Your task to perform on an android device: Open Google Image 0: 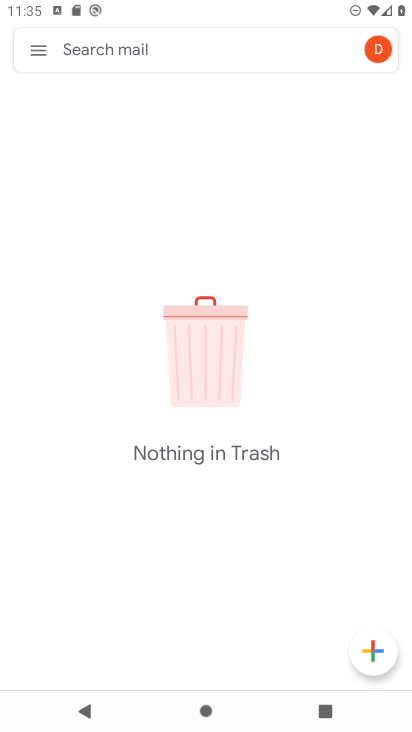
Step 0: press home button
Your task to perform on an android device: Open Google Image 1: 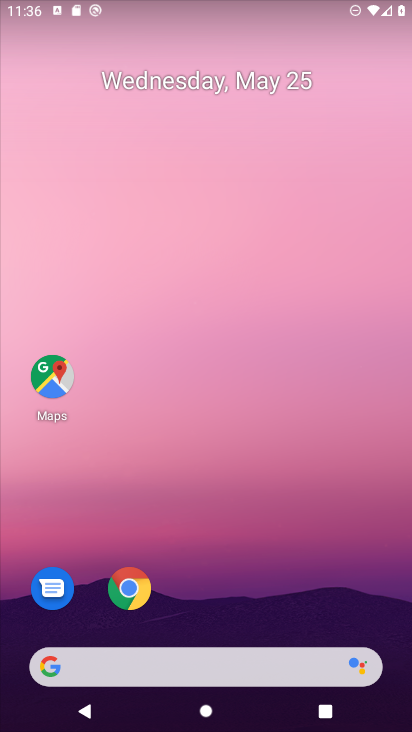
Step 1: click (103, 661)
Your task to perform on an android device: Open Google Image 2: 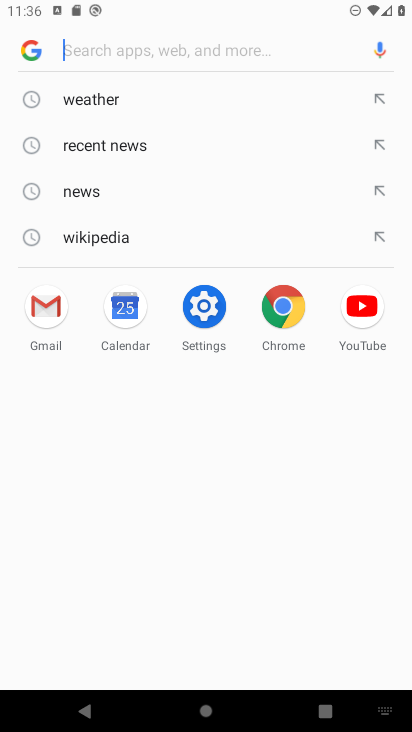
Step 2: click (33, 43)
Your task to perform on an android device: Open Google Image 3: 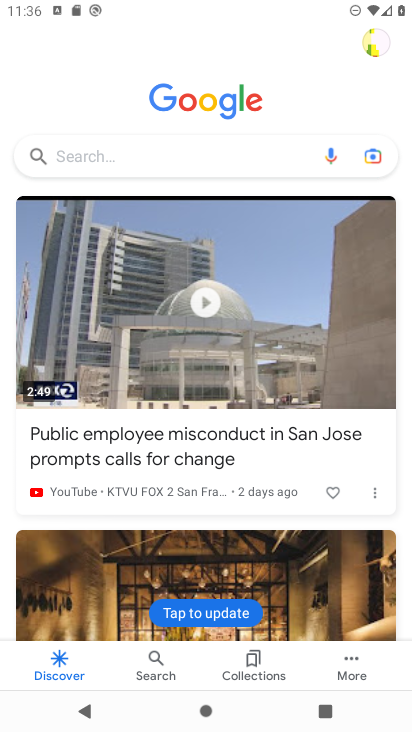
Step 3: task complete